Your task to perform on an android device: Open Youtube and go to "Your channel" Image 0: 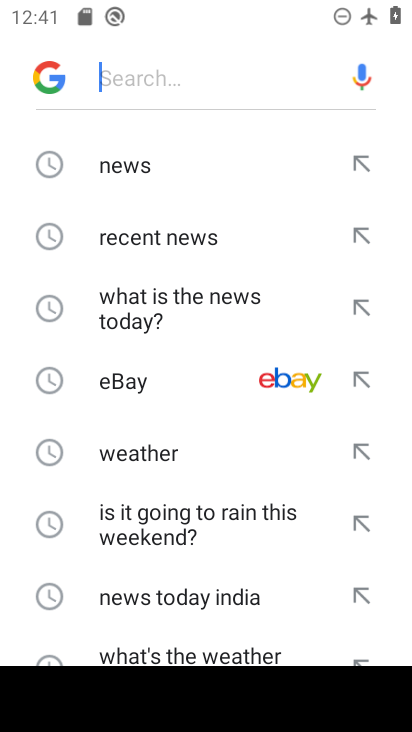
Step 0: press home button
Your task to perform on an android device: Open Youtube and go to "Your channel" Image 1: 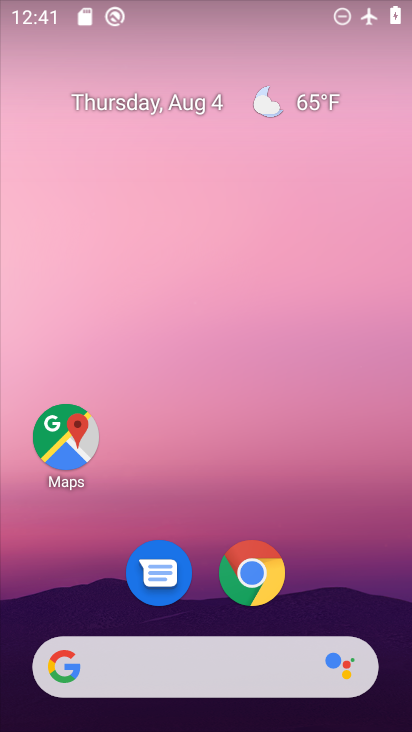
Step 1: drag from (364, 508) to (343, 90)
Your task to perform on an android device: Open Youtube and go to "Your channel" Image 2: 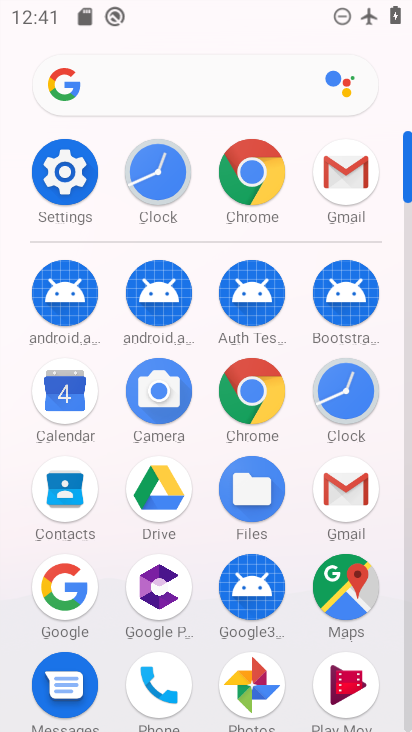
Step 2: drag from (301, 530) to (305, 160)
Your task to perform on an android device: Open Youtube and go to "Your channel" Image 3: 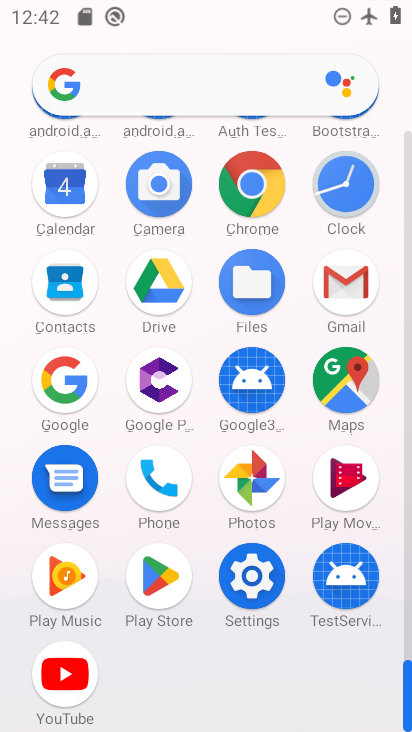
Step 3: click (84, 683)
Your task to perform on an android device: Open Youtube and go to "Your channel" Image 4: 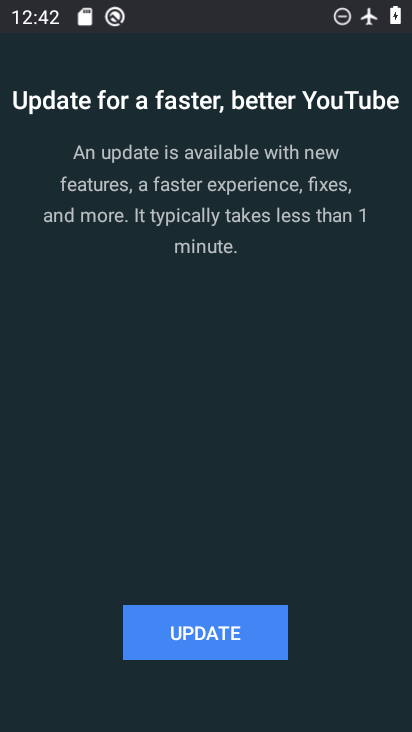
Step 4: task complete